Your task to perform on an android device: open sync settings in chrome Image 0: 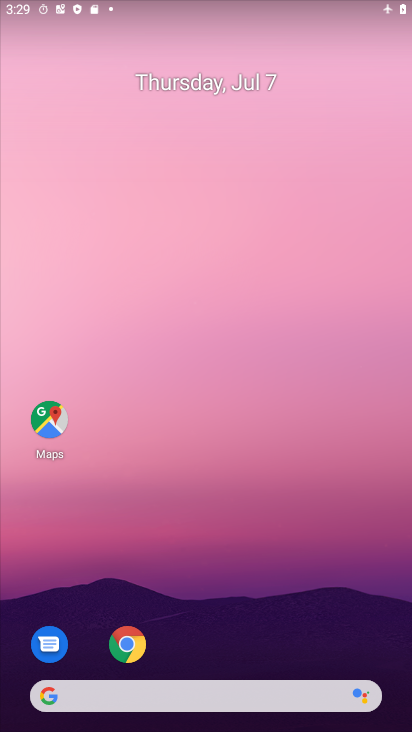
Step 0: drag from (197, 675) to (225, 4)
Your task to perform on an android device: open sync settings in chrome Image 1: 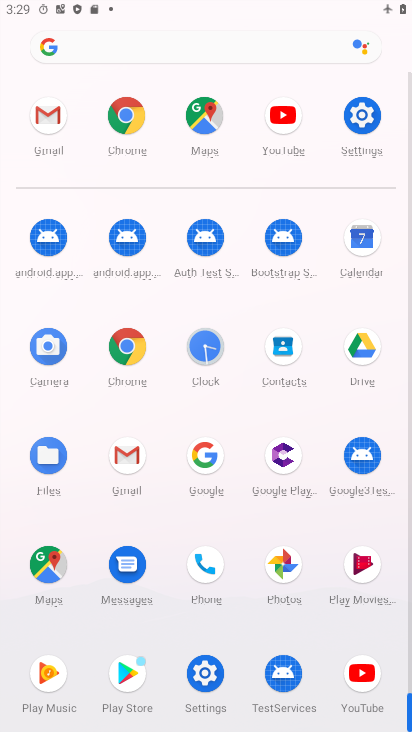
Step 1: click (126, 112)
Your task to perform on an android device: open sync settings in chrome Image 2: 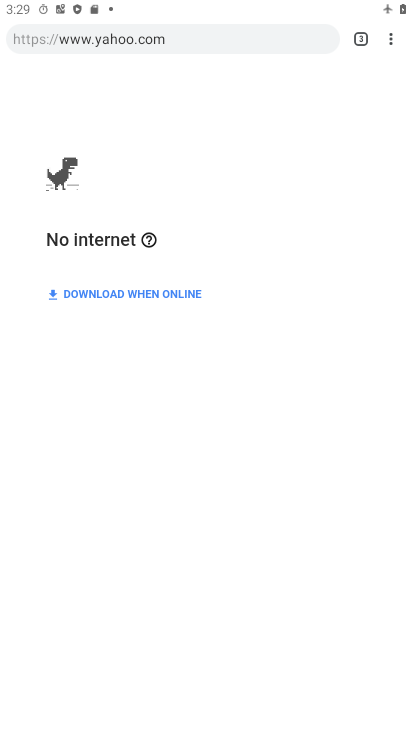
Step 2: click (385, 38)
Your task to perform on an android device: open sync settings in chrome Image 3: 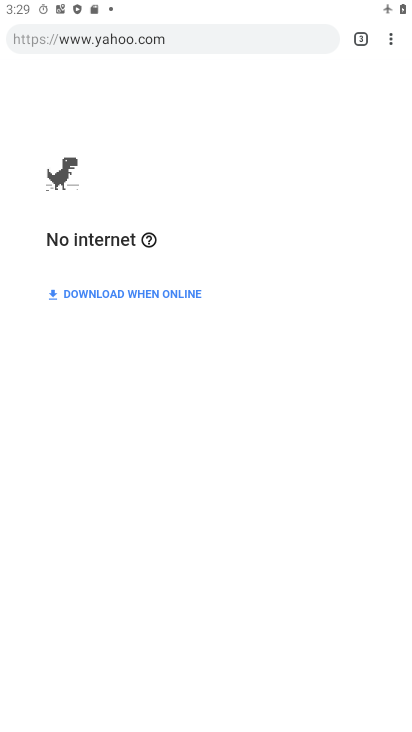
Step 3: click (392, 42)
Your task to perform on an android device: open sync settings in chrome Image 4: 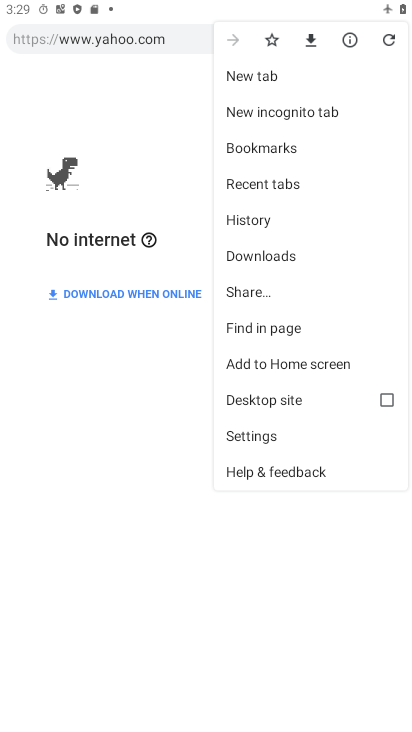
Step 4: click (234, 428)
Your task to perform on an android device: open sync settings in chrome Image 5: 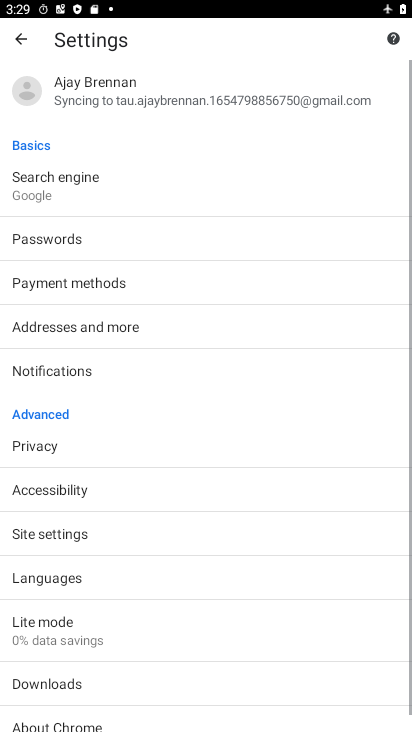
Step 5: click (79, 101)
Your task to perform on an android device: open sync settings in chrome Image 6: 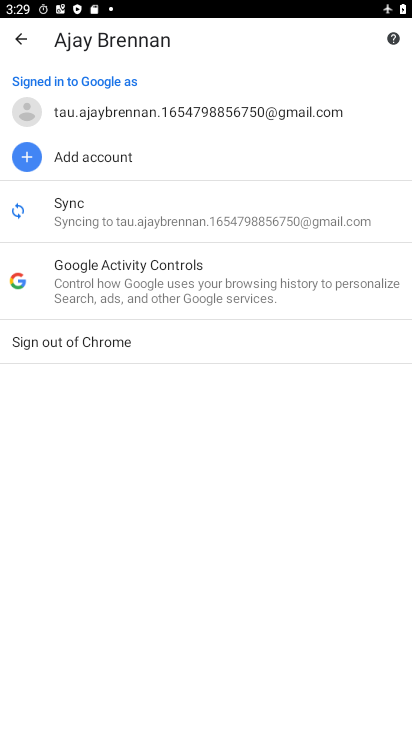
Step 6: click (108, 194)
Your task to perform on an android device: open sync settings in chrome Image 7: 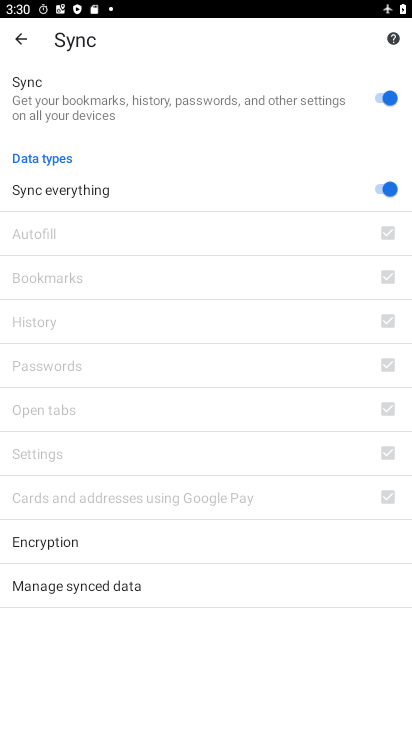
Step 7: task complete